Your task to perform on an android device: open app "Firefox Browser" Image 0: 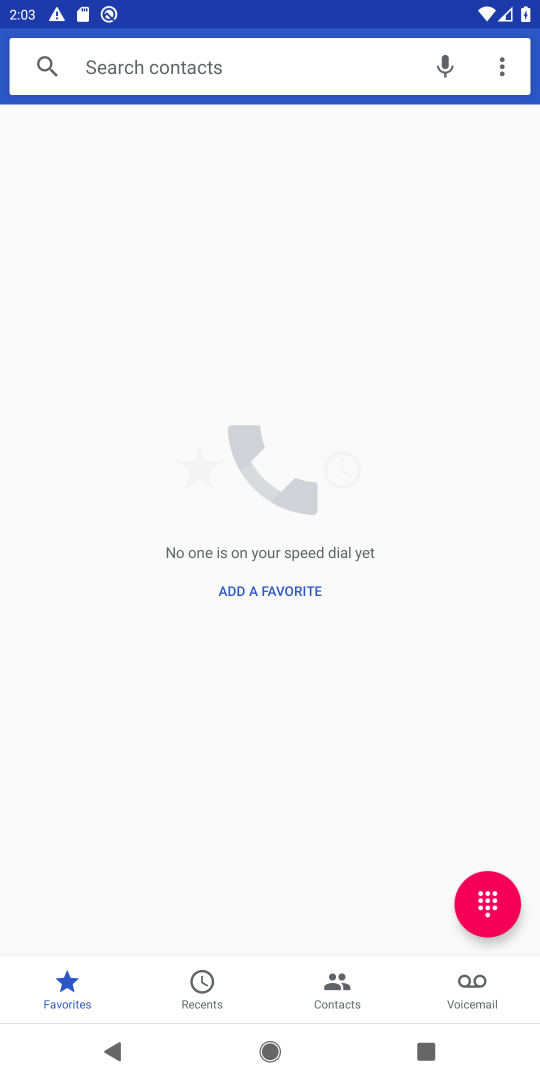
Step 0: press home button
Your task to perform on an android device: open app "Firefox Browser" Image 1: 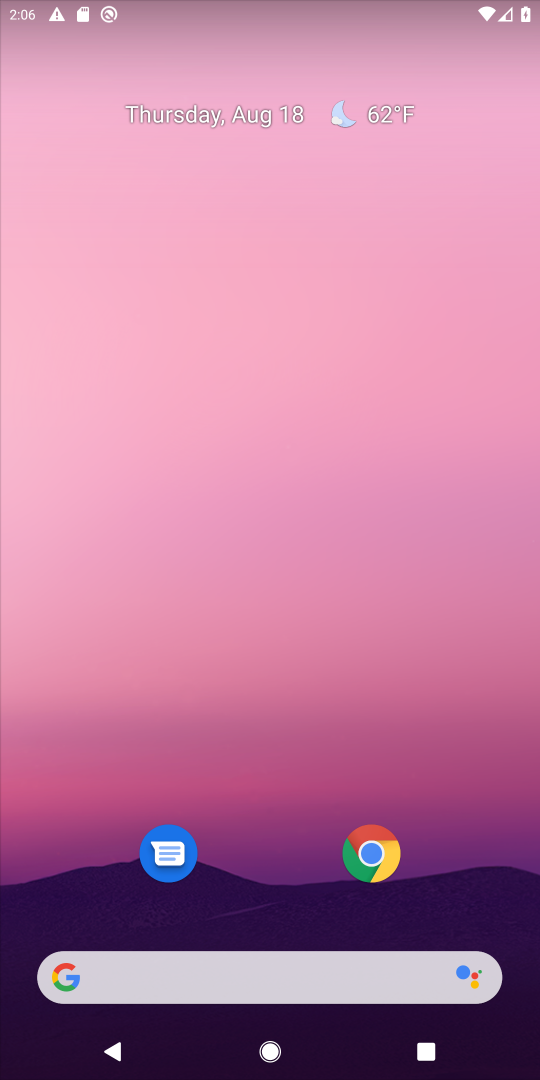
Step 1: drag from (470, 879) to (270, 0)
Your task to perform on an android device: open app "Firefox Browser" Image 2: 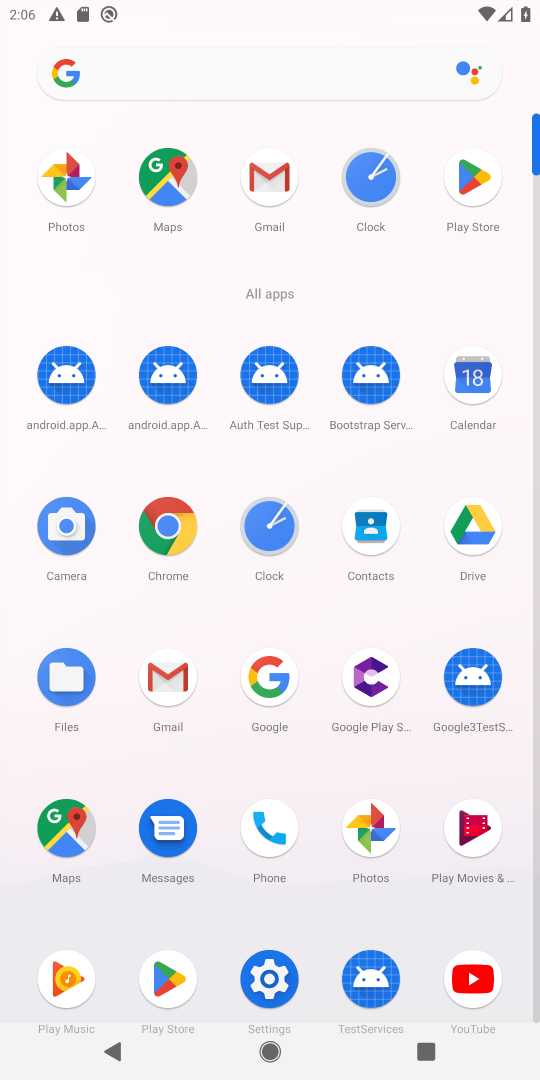
Step 2: click (173, 987)
Your task to perform on an android device: open app "Firefox Browser" Image 3: 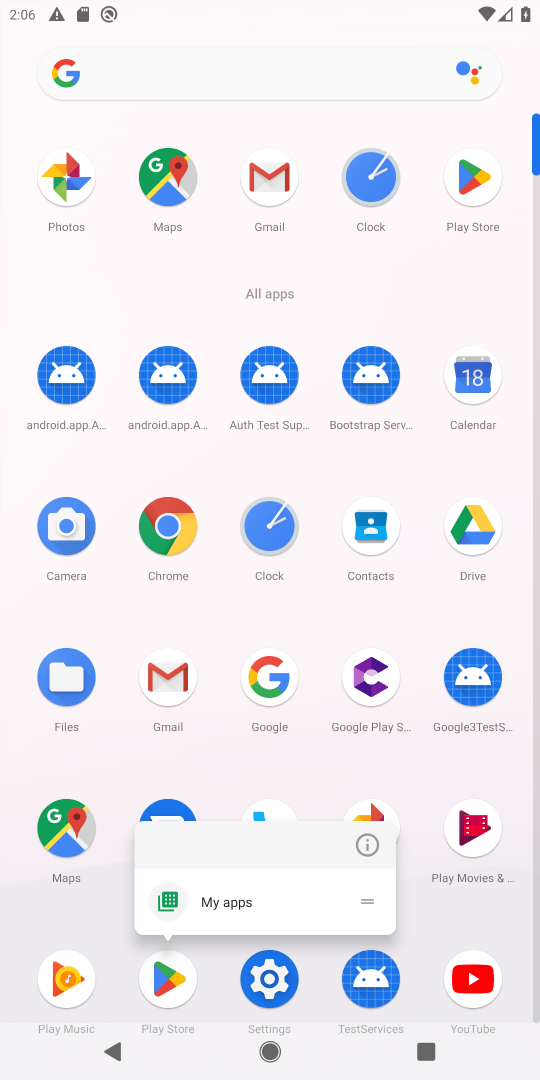
Step 3: click (170, 975)
Your task to perform on an android device: open app "Firefox Browser" Image 4: 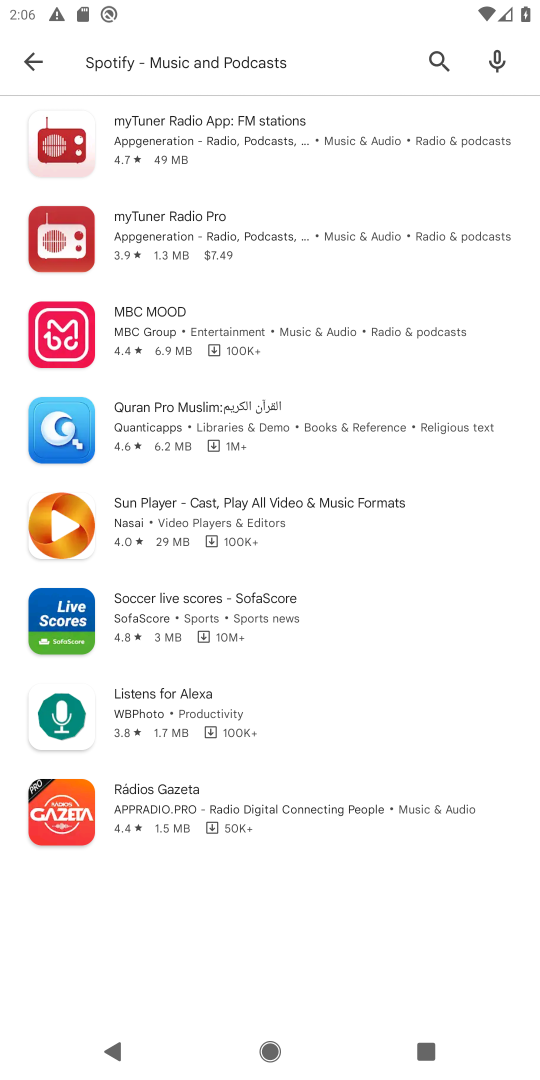
Step 4: press back button
Your task to perform on an android device: open app "Firefox Browser" Image 5: 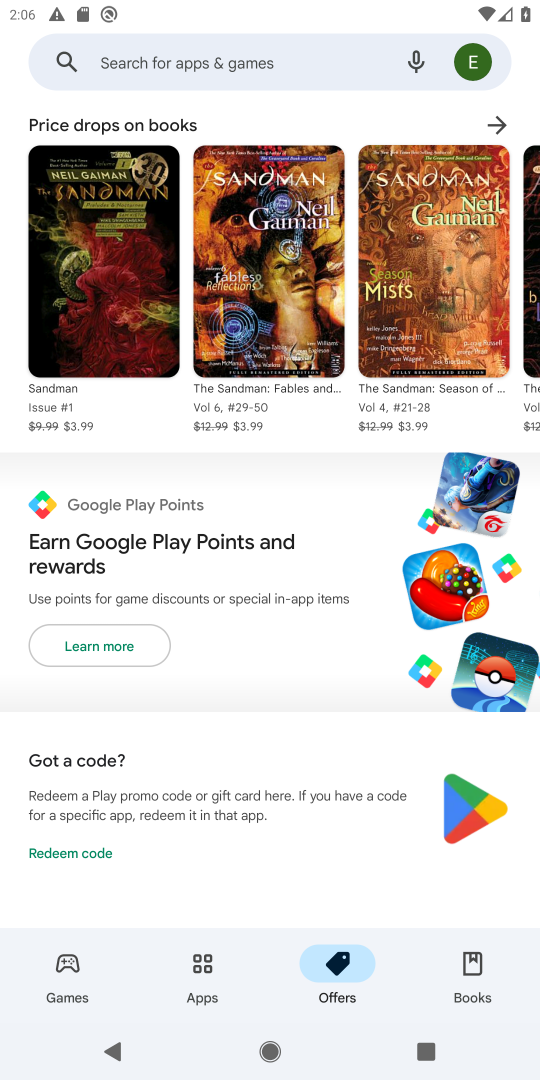
Step 5: click (164, 55)
Your task to perform on an android device: open app "Firefox Browser" Image 6: 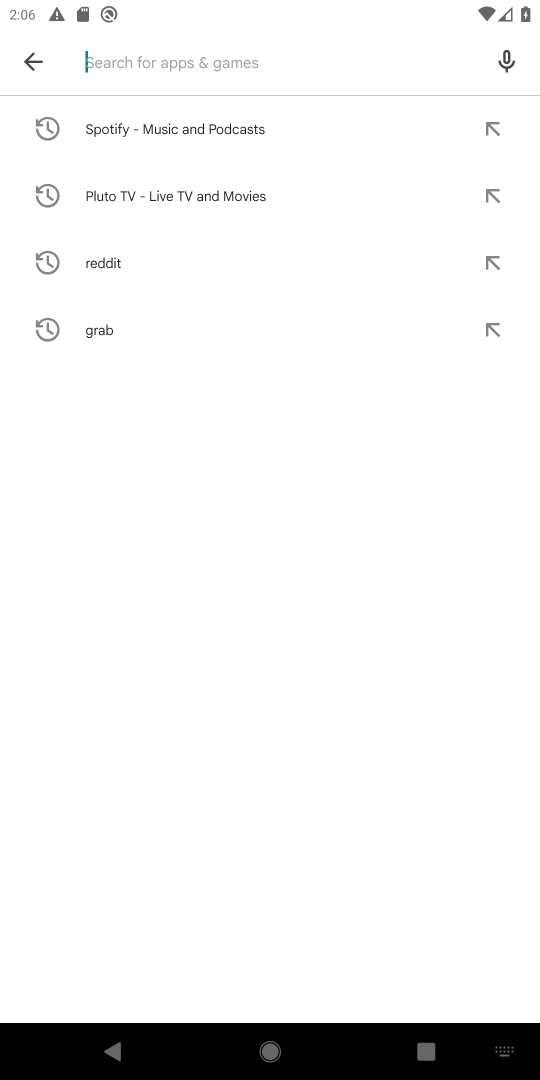
Step 6: type "Firefox Browser"
Your task to perform on an android device: open app "Firefox Browser" Image 7: 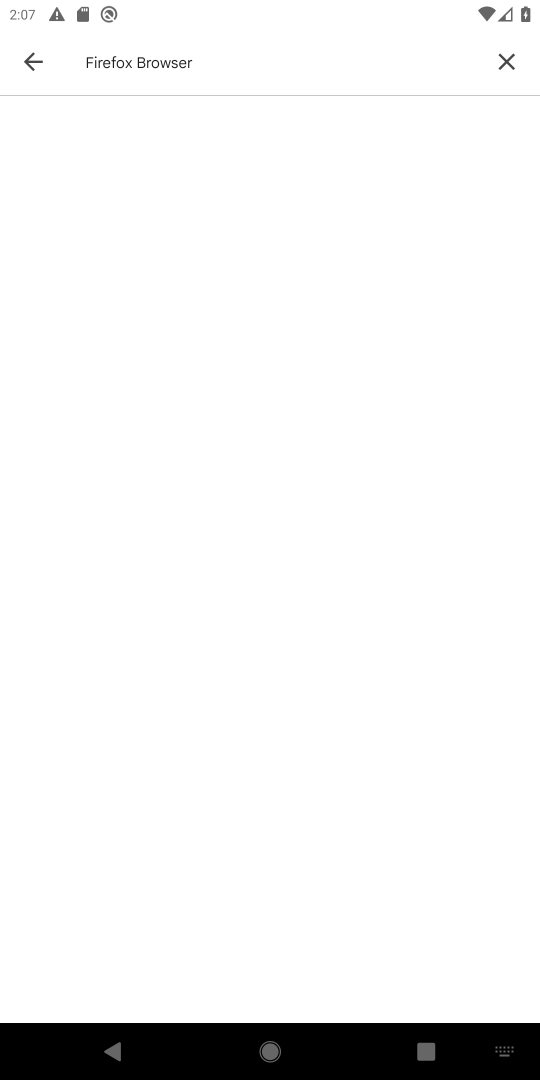
Step 7: task complete